Your task to perform on an android device: open app "WhatsApp Messenger" (install if not already installed) Image 0: 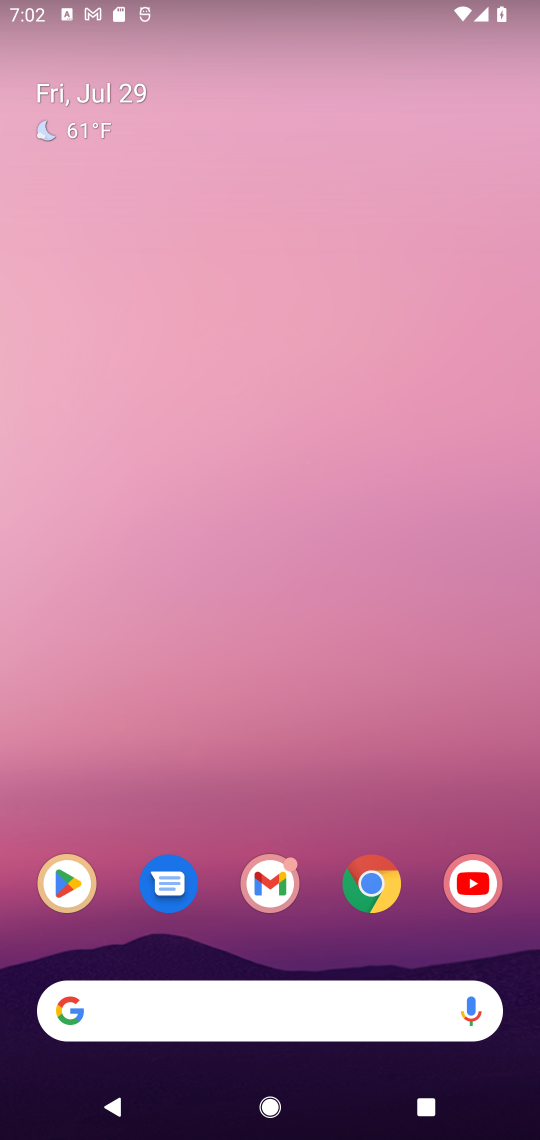
Step 0: click (75, 868)
Your task to perform on an android device: open app "WhatsApp Messenger" (install if not already installed) Image 1: 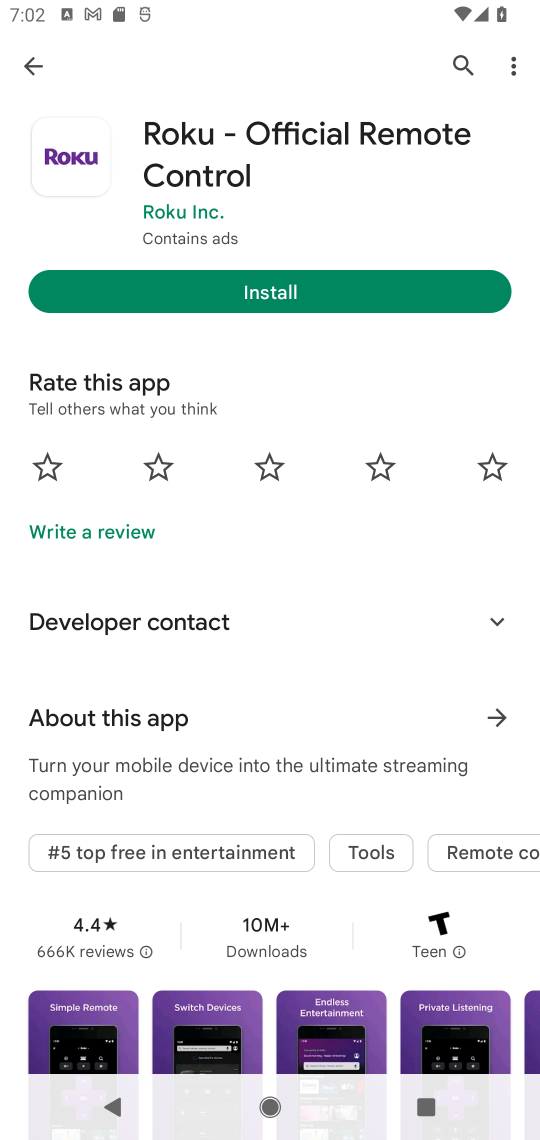
Step 1: click (465, 70)
Your task to perform on an android device: open app "WhatsApp Messenger" (install if not already installed) Image 2: 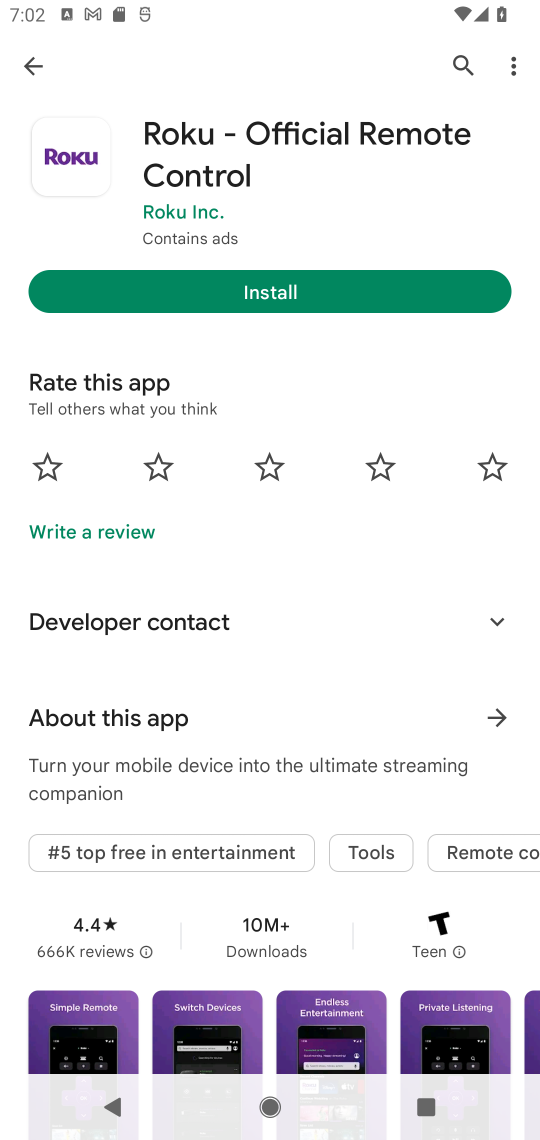
Step 2: click (465, 70)
Your task to perform on an android device: open app "WhatsApp Messenger" (install if not already installed) Image 3: 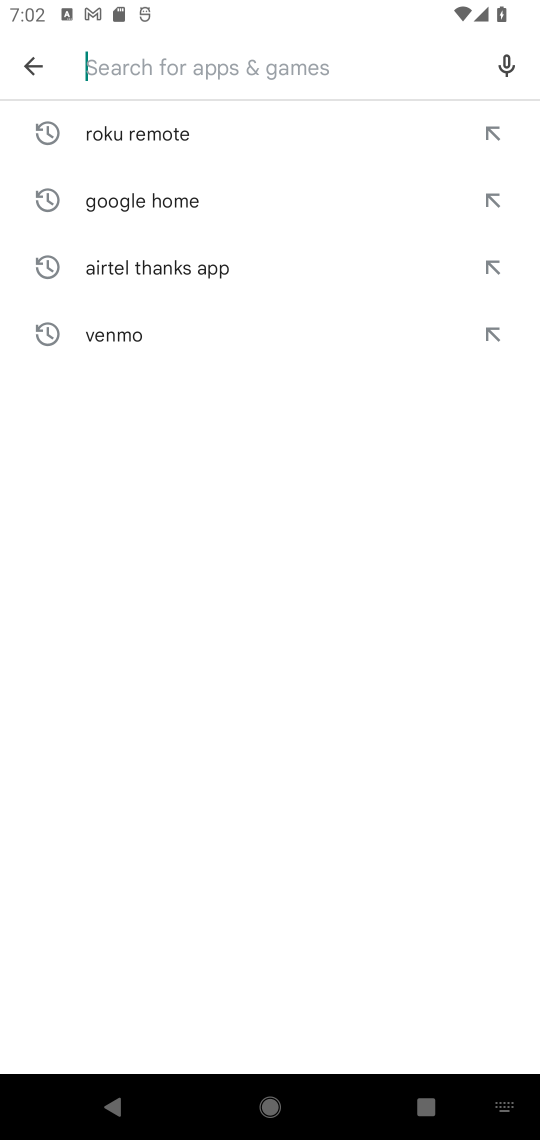
Step 3: click (222, 75)
Your task to perform on an android device: open app "WhatsApp Messenger" (install if not already installed) Image 4: 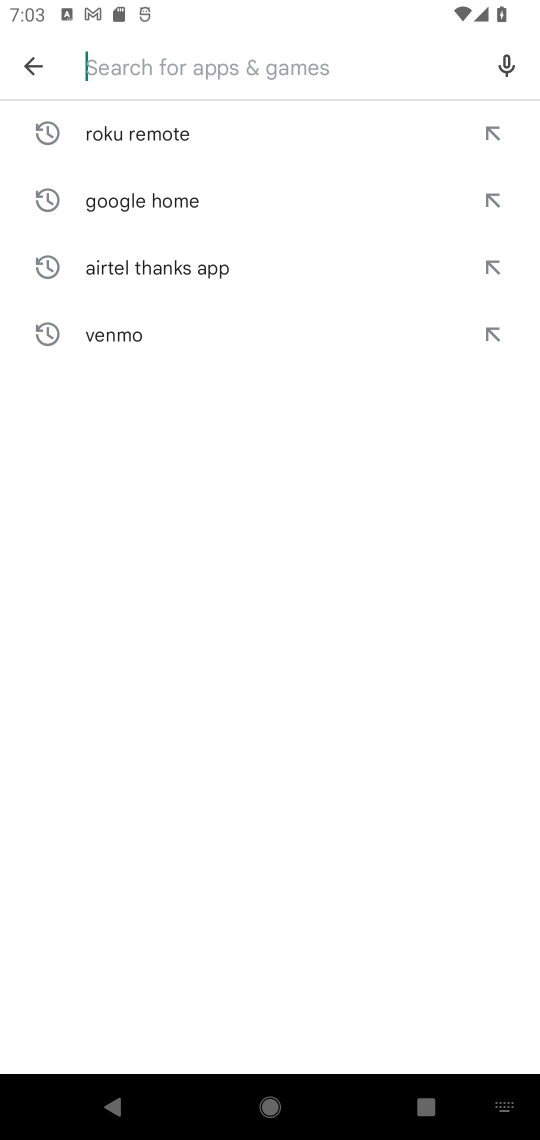
Step 4: click (119, 67)
Your task to perform on an android device: open app "WhatsApp Messenger" (install if not already installed) Image 5: 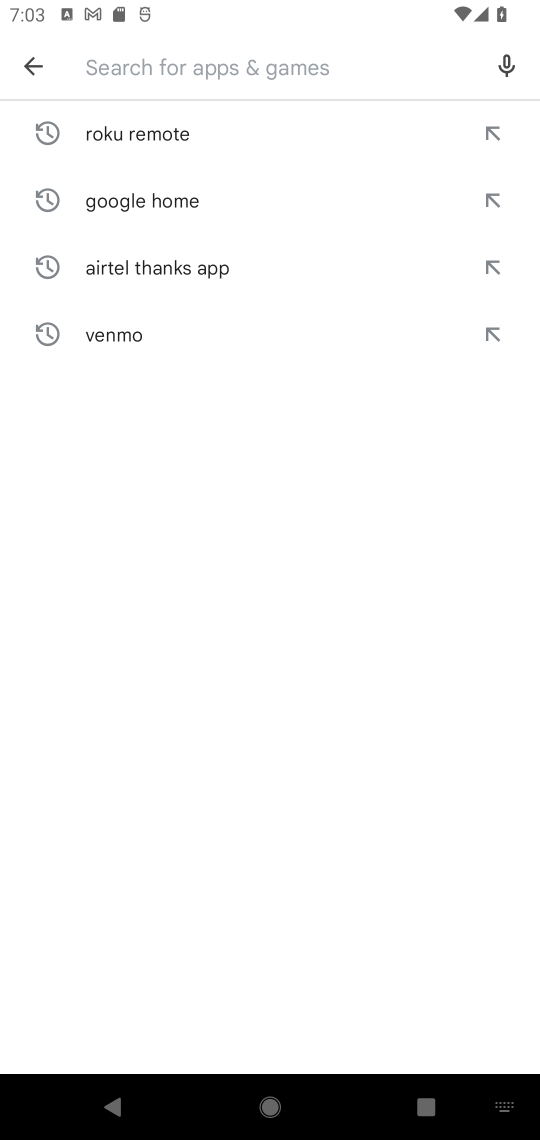
Step 5: type "WhatsApp Messenger"
Your task to perform on an android device: open app "WhatsApp Messenger" (install if not already installed) Image 6: 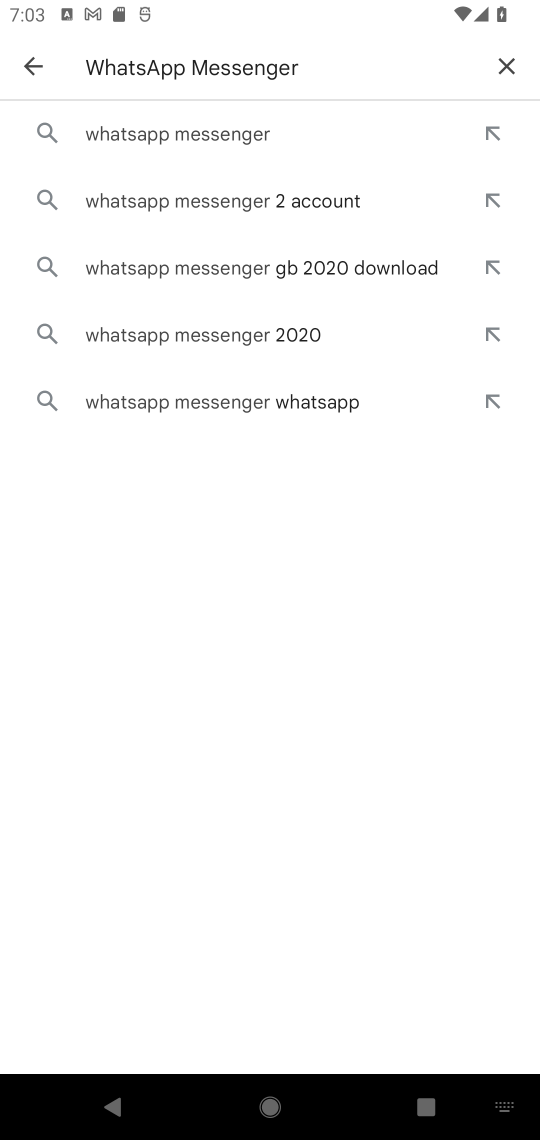
Step 6: click (288, 139)
Your task to perform on an android device: open app "WhatsApp Messenger" (install if not already installed) Image 7: 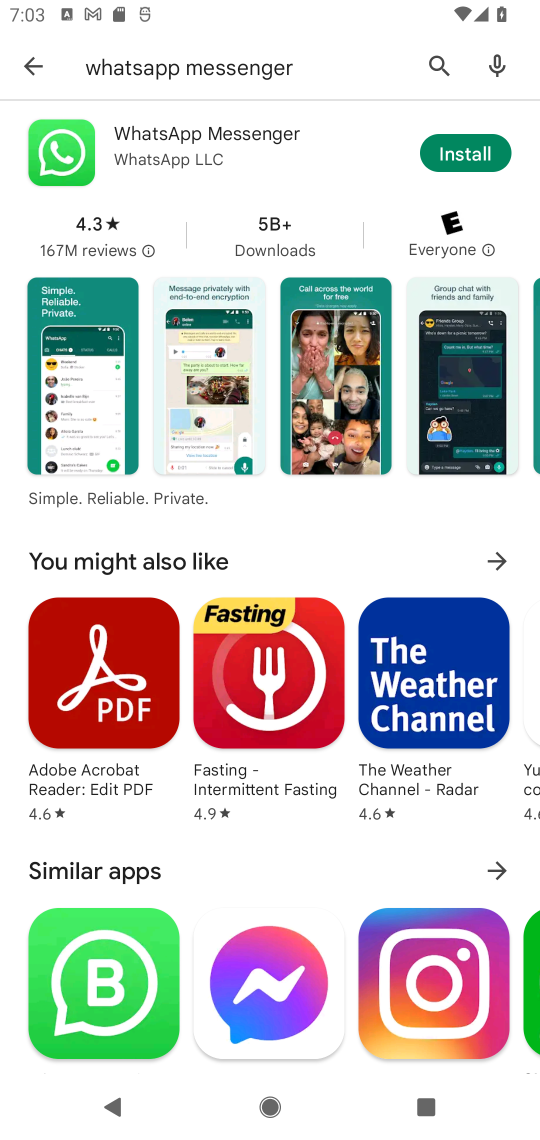
Step 7: click (448, 140)
Your task to perform on an android device: open app "WhatsApp Messenger" (install if not already installed) Image 8: 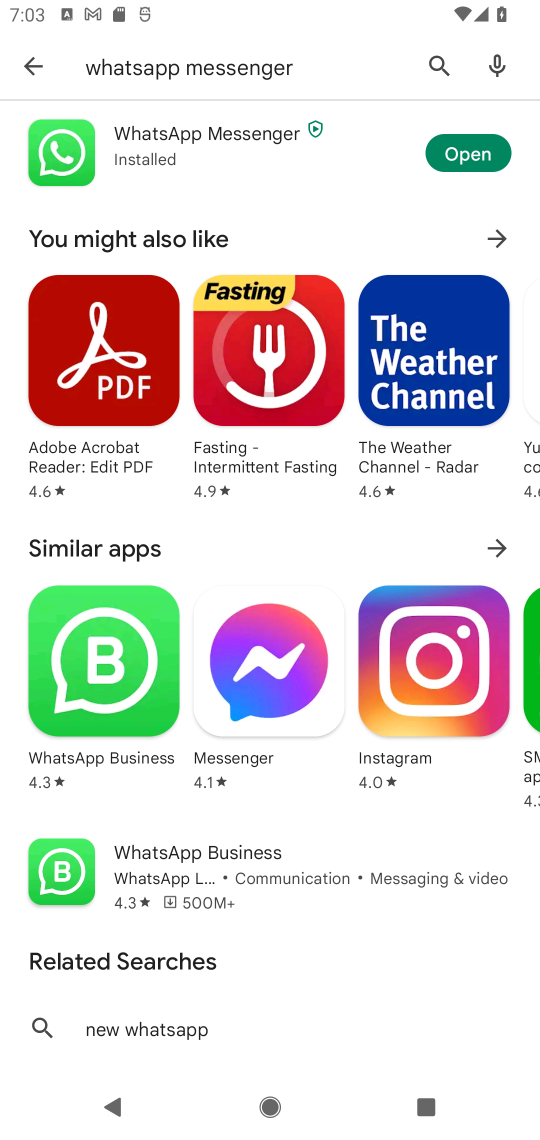
Step 8: click (461, 144)
Your task to perform on an android device: open app "WhatsApp Messenger" (install if not already installed) Image 9: 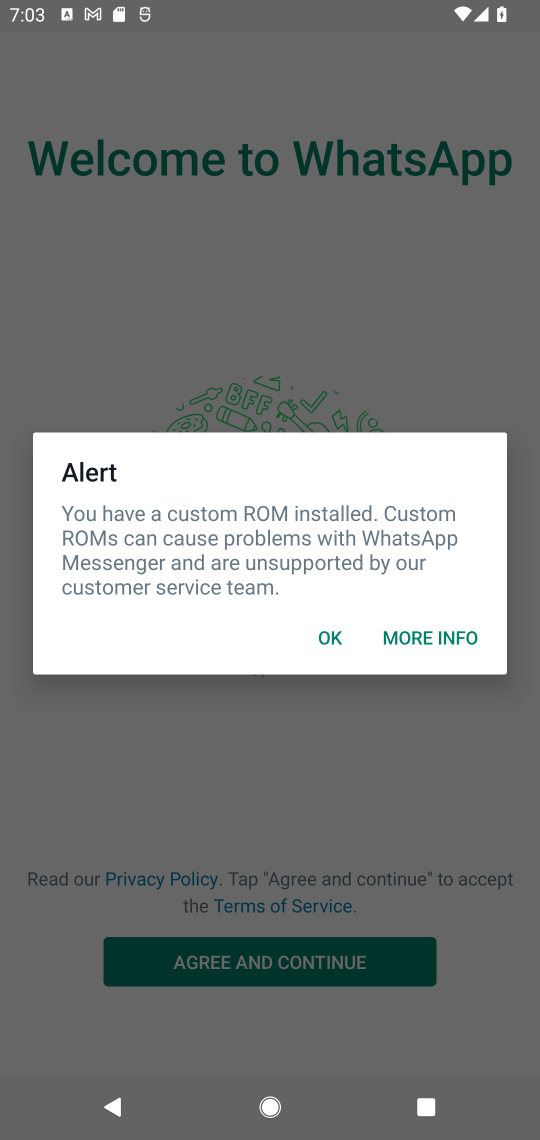
Step 9: task complete